Your task to perform on an android device: Go to location settings Image 0: 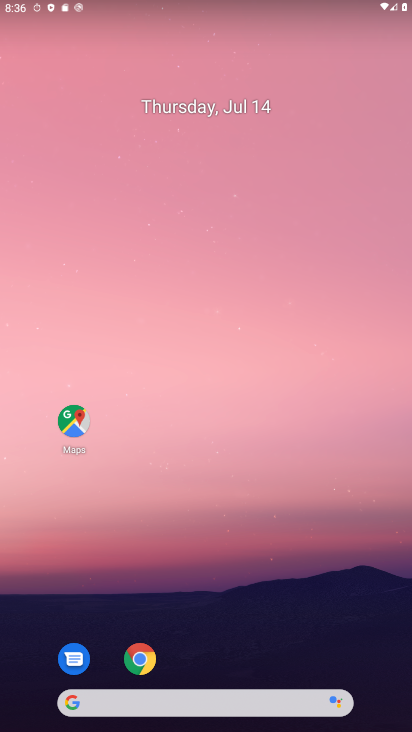
Step 0: drag from (226, 670) to (92, 8)
Your task to perform on an android device: Go to location settings Image 1: 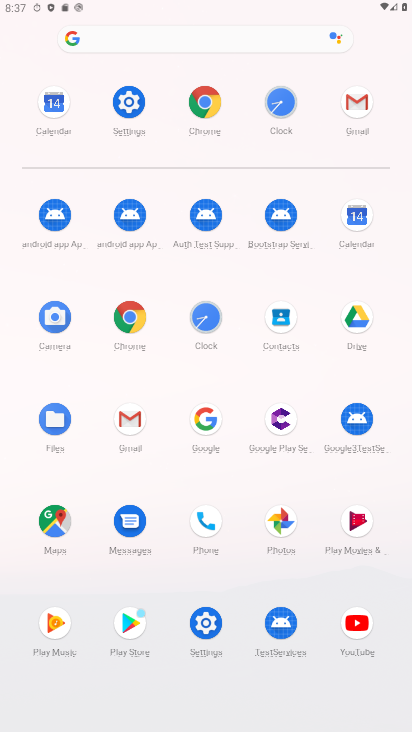
Step 1: click (206, 624)
Your task to perform on an android device: Go to location settings Image 2: 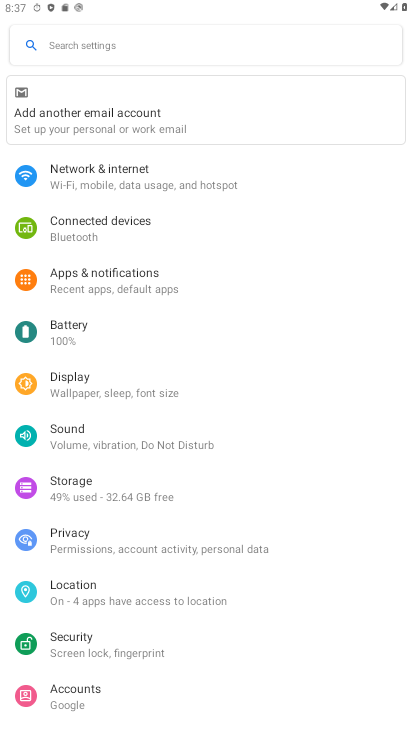
Step 2: click (90, 582)
Your task to perform on an android device: Go to location settings Image 3: 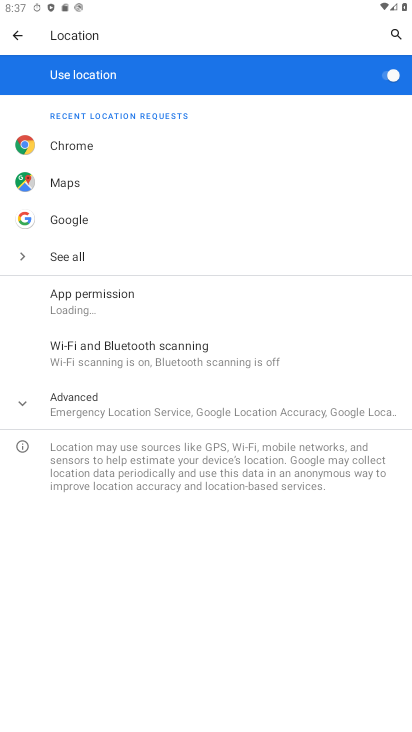
Step 3: click (147, 419)
Your task to perform on an android device: Go to location settings Image 4: 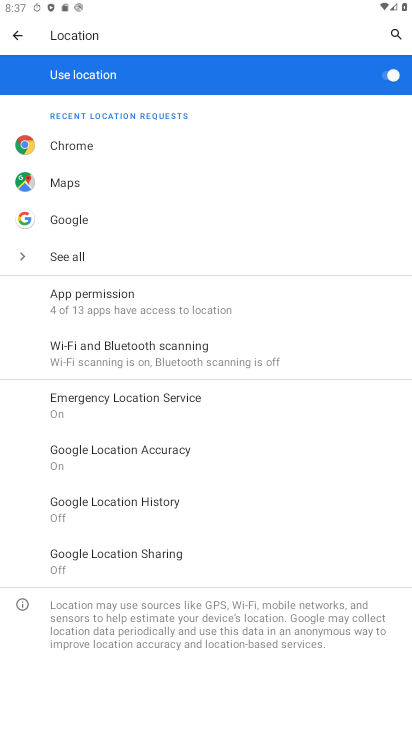
Step 4: task complete